Your task to perform on an android device: Go to eBay Image 0: 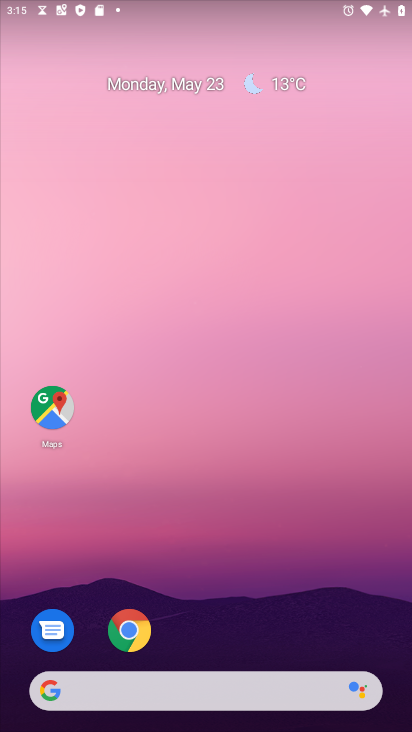
Step 0: click (139, 631)
Your task to perform on an android device: Go to eBay Image 1: 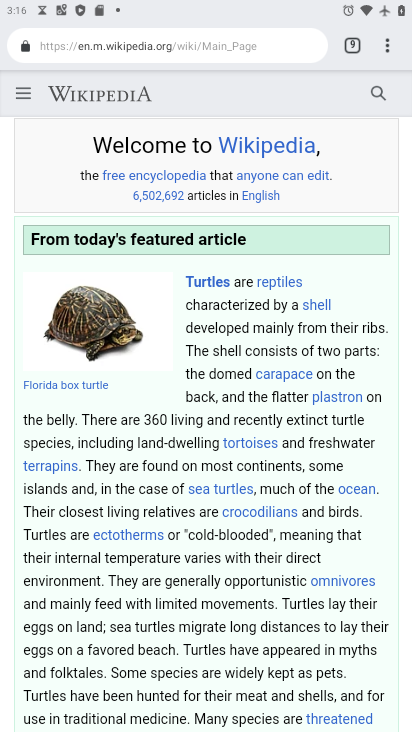
Step 1: click (353, 37)
Your task to perform on an android device: Go to eBay Image 2: 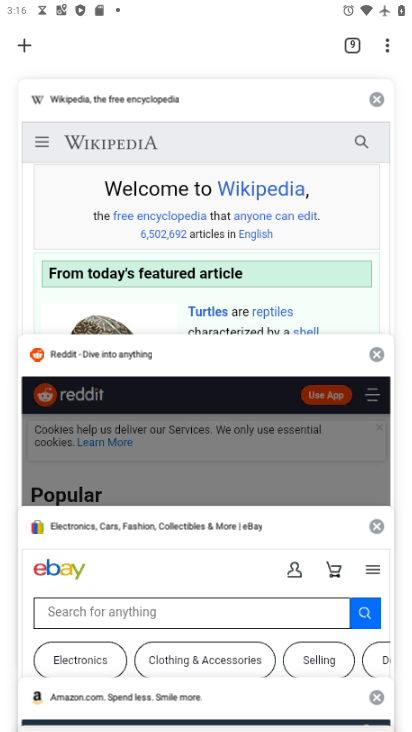
Step 2: click (213, 562)
Your task to perform on an android device: Go to eBay Image 3: 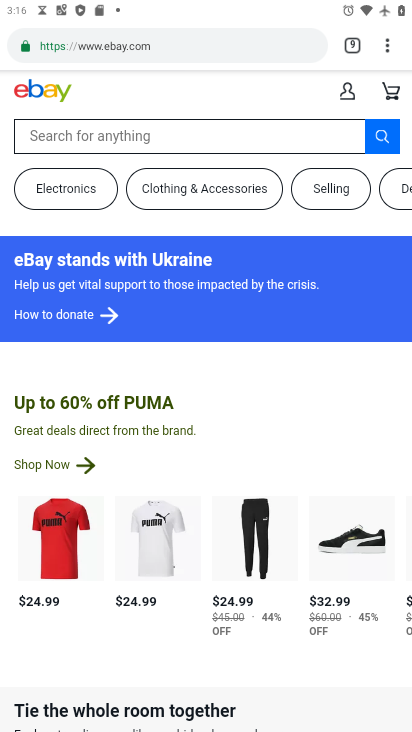
Step 3: task complete